Your task to perform on an android device: What's the weather going to be this weekend? Image 0: 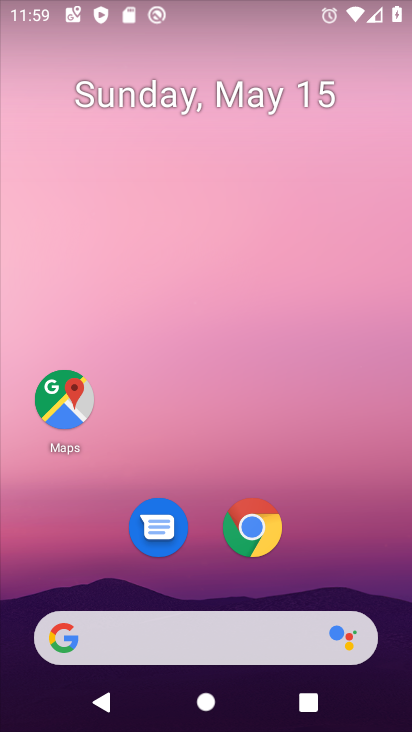
Step 0: drag from (400, 531) to (330, 71)
Your task to perform on an android device: What's the weather going to be this weekend? Image 1: 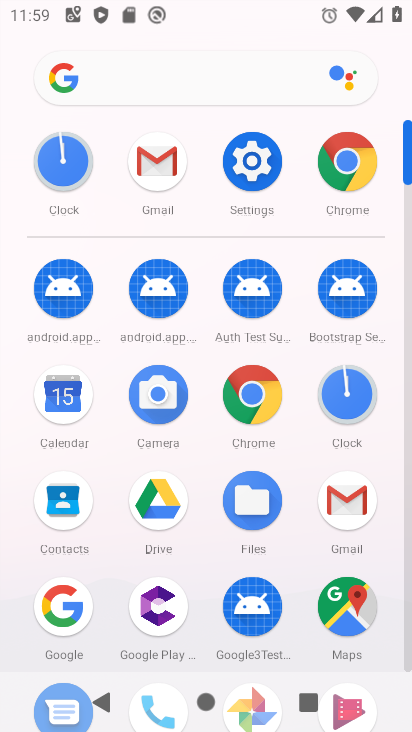
Step 1: click (207, 74)
Your task to perform on an android device: What's the weather going to be this weekend? Image 2: 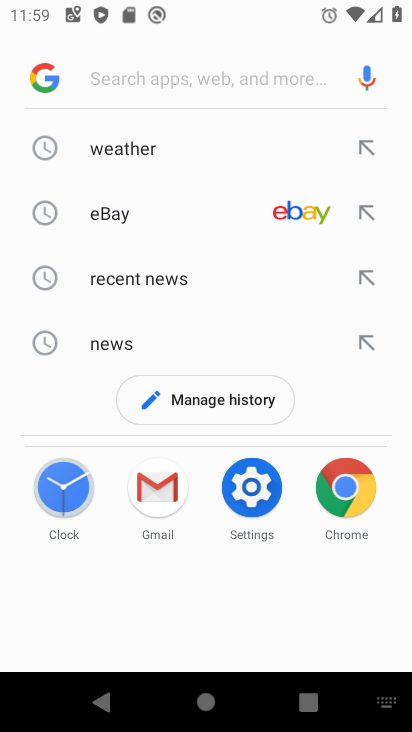
Step 2: click (208, 78)
Your task to perform on an android device: What's the weather going to be this weekend? Image 3: 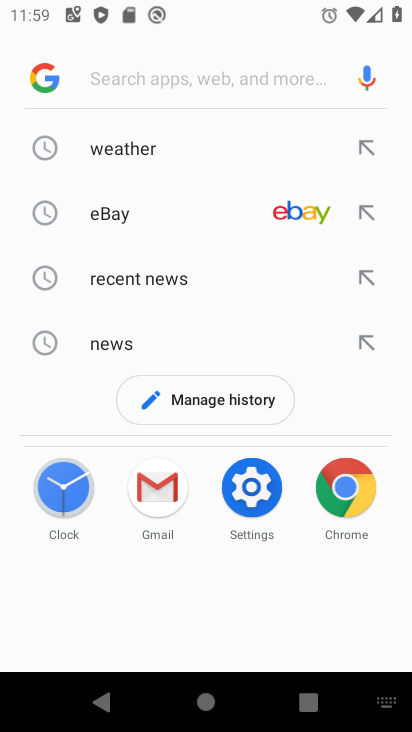
Step 3: click (173, 133)
Your task to perform on an android device: What's the weather going to be this weekend? Image 4: 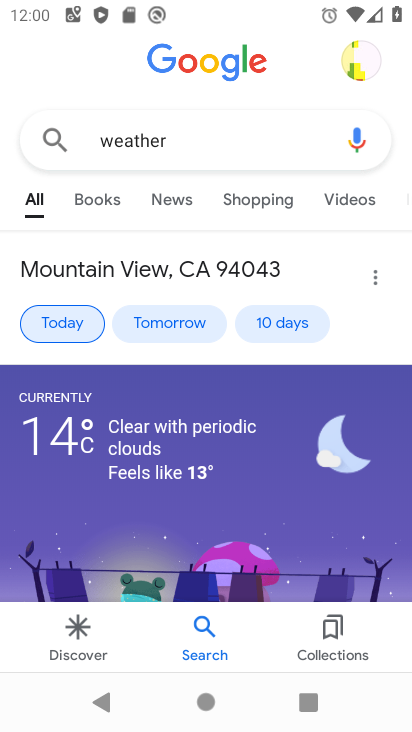
Step 4: click (270, 317)
Your task to perform on an android device: What's the weather going to be this weekend? Image 5: 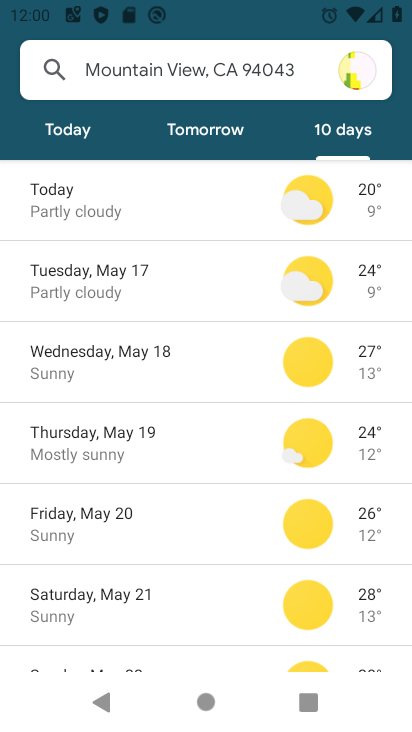
Step 5: task complete